Your task to perform on an android device: Go to privacy settings Image 0: 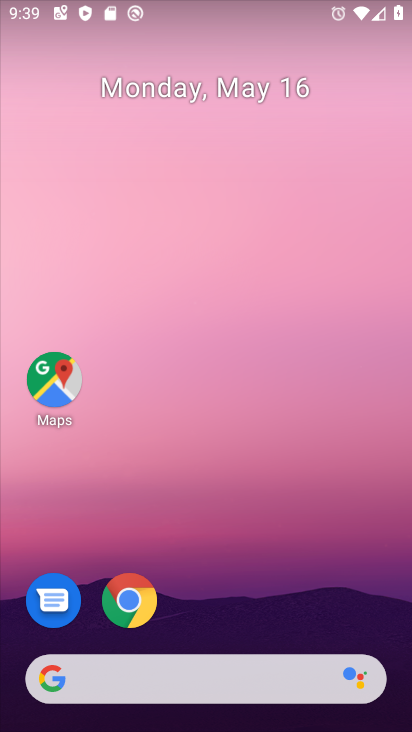
Step 0: click (267, 70)
Your task to perform on an android device: Go to privacy settings Image 1: 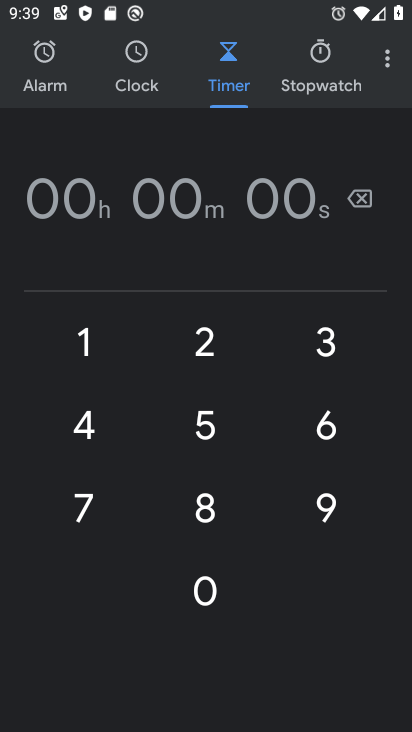
Step 1: click (392, 60)
Your task to perform on an android device: Go to privacy settings Image 2: 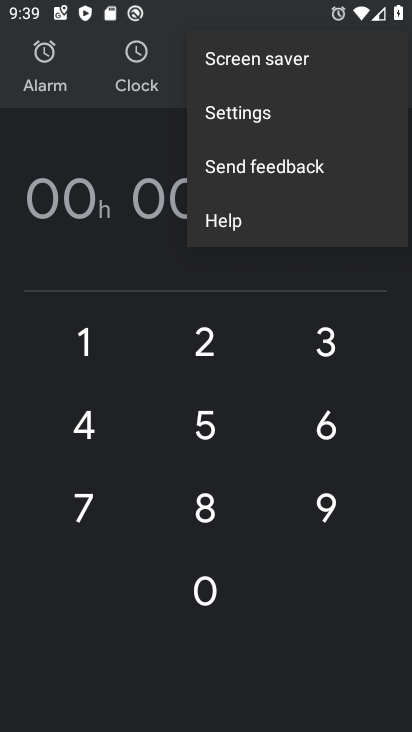
Step 2: press home button
Your task to perform on an android device: Go to privacy settings Image 3: 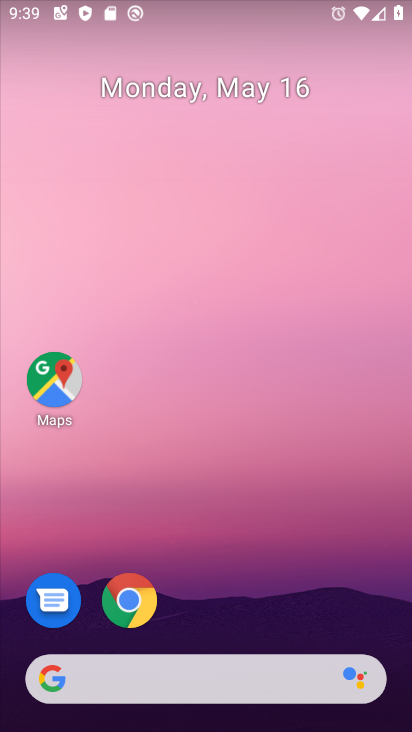
Step 3: drag from (227, 616) to (244, 177)
Your task to perform on an android device: Go to privacy settings Image 4: 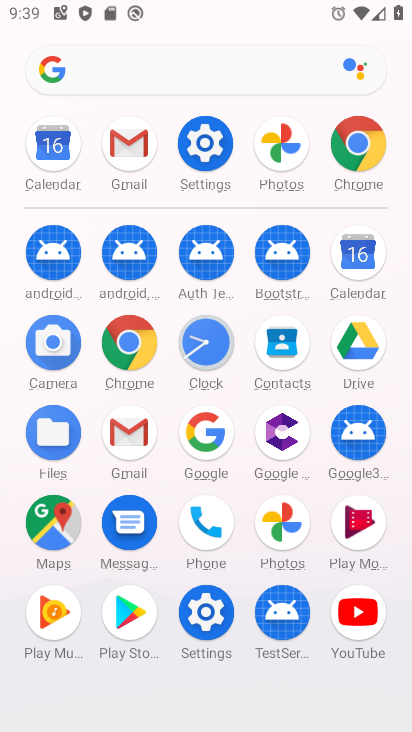
Step 4: click (222, 139)
Your task to perform on an android device: Go to privacy settings Image 5: 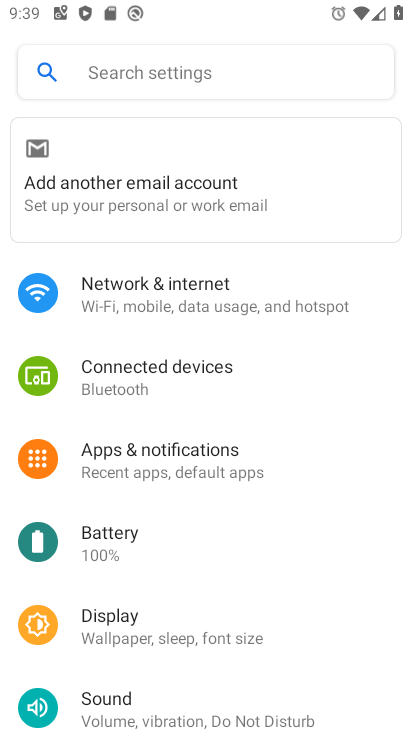
Step 5: drag from (209, 644) to (253, 167)
Your task to perform on an android device: Go to privacy settings Image 6: 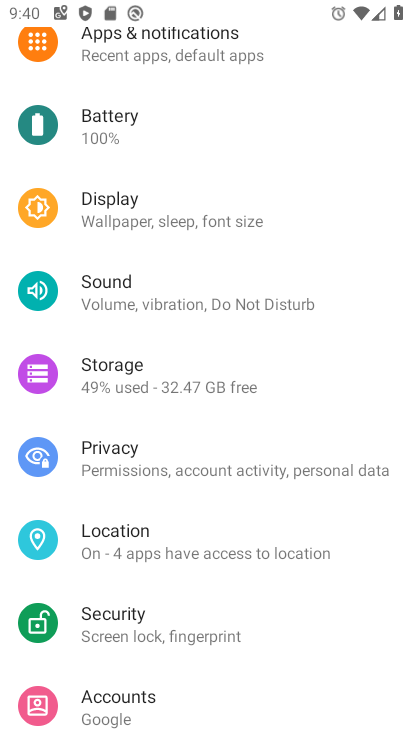
Step 6: click (124, 442)
Your task to perform on an android device: Go to privacy settings Image 7: 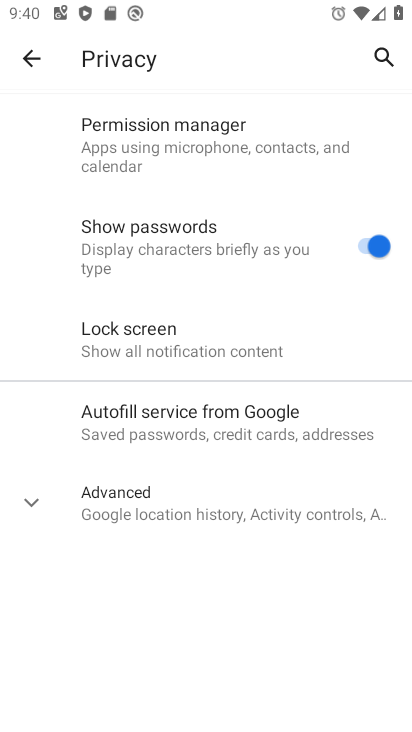
Step 7: task complete